Your task to perform on an android device: Check the weather Image 0: 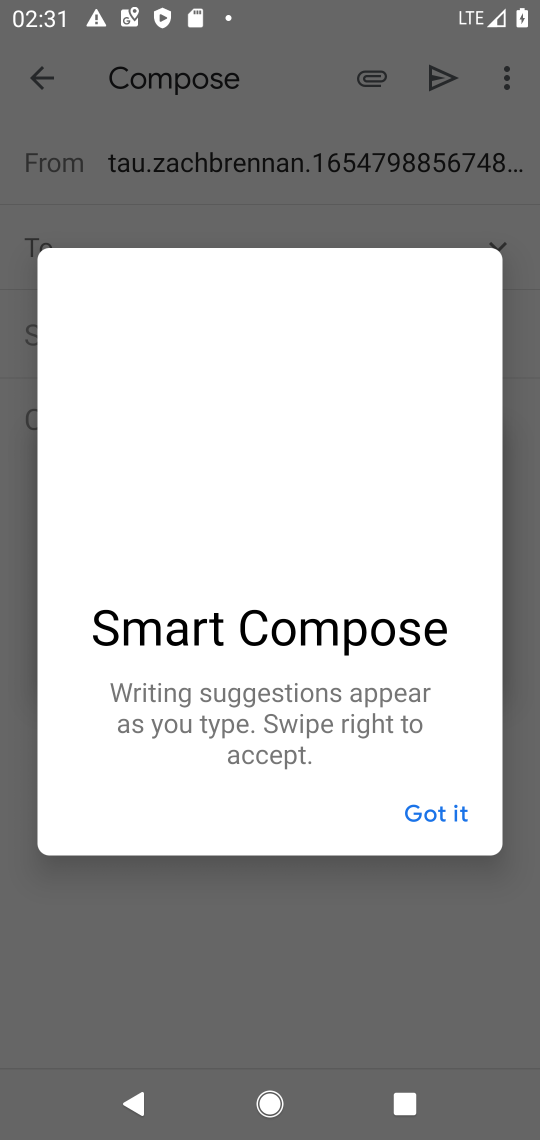
Step 0: press home button
Your task to perform on an android device: Check the weather Image 1: 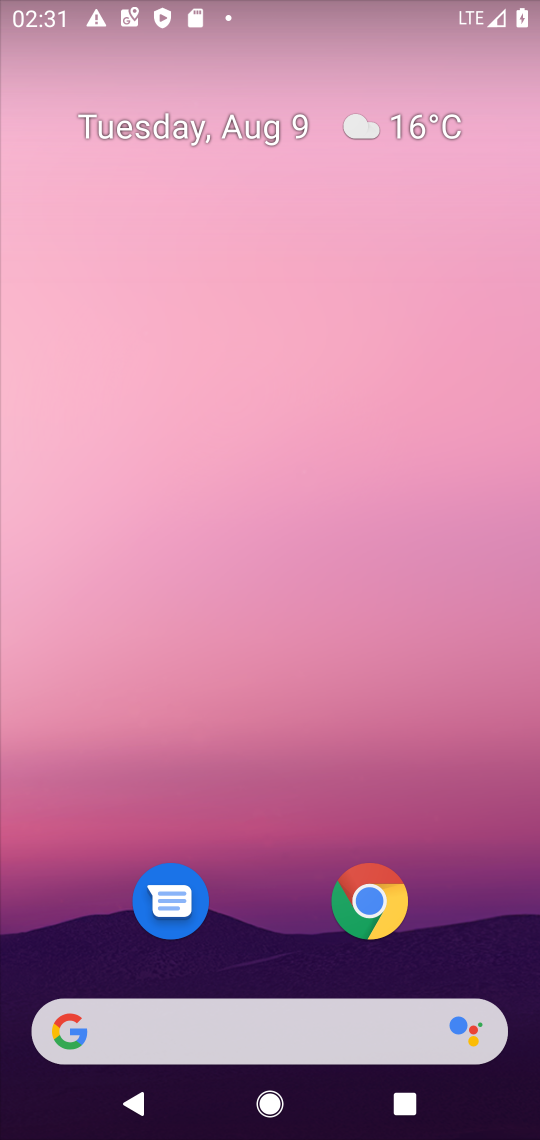
Step 1: click (405, 127)
Your task to perform on an android device: Check the weather Image 2: 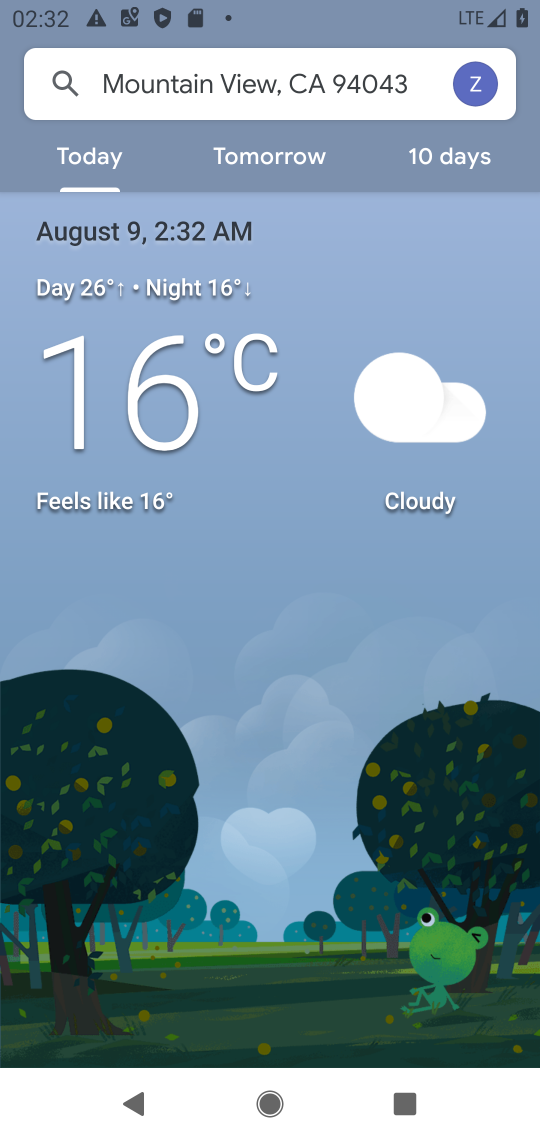
Step 2: task complete